Your task to perform on an android device: delete the emails in spam in the gmail app Image 0: 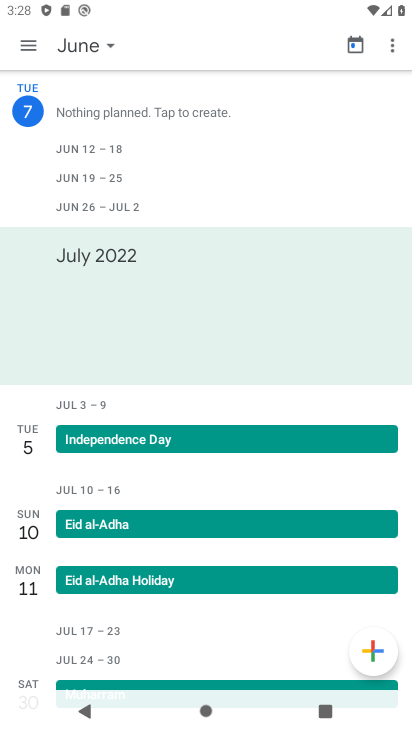
Step 0: press home button
Your task to perform on an android device: delete the emails in spam in the gmail app Image 1: 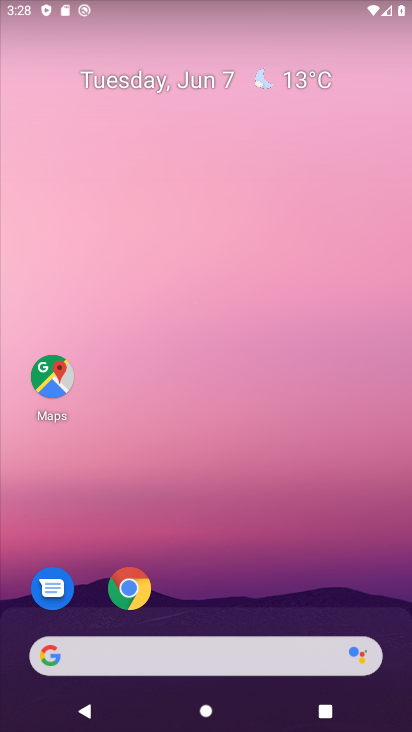
Step 1: drag from (305, 607) to (218, 73)
Your task to perform on an android device: delete the emails in spam in the gmail app Image 2: 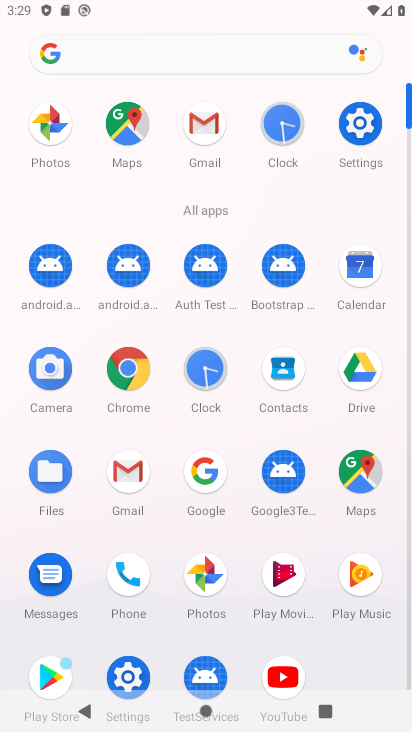
Step 2: click (140, 457)
Your task to perform on an android device: delete the emails in spam in the gmail app Image 3: 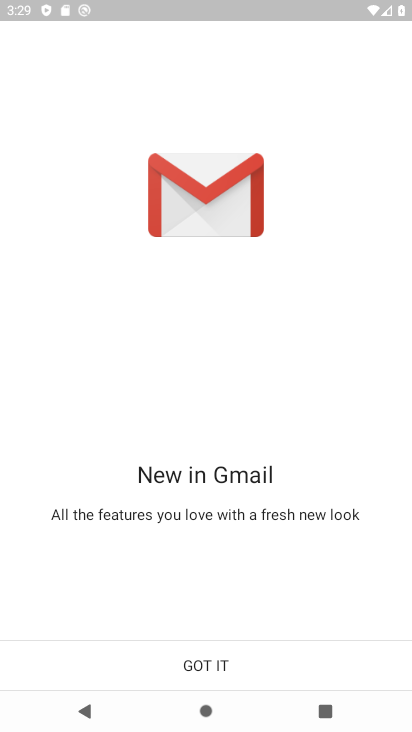
Step 3: click (160, 671)
Your task to perform on an android device: delete the emails in spam in the gmail app Image 4: 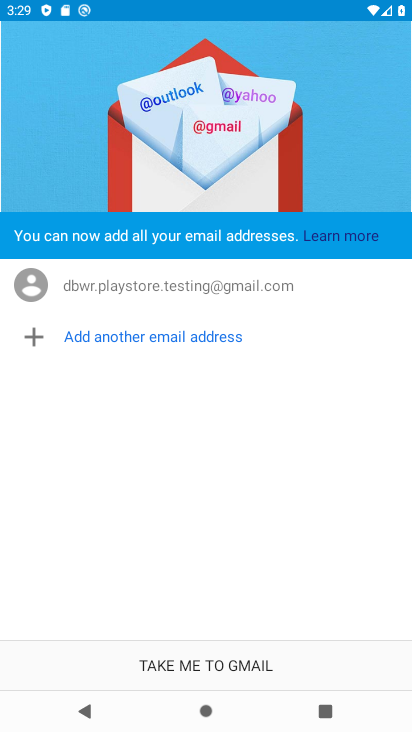
Step 4: click (160, 671)
Your task to perform on an android device: delete the emails in spam in the gmail app Image 5: 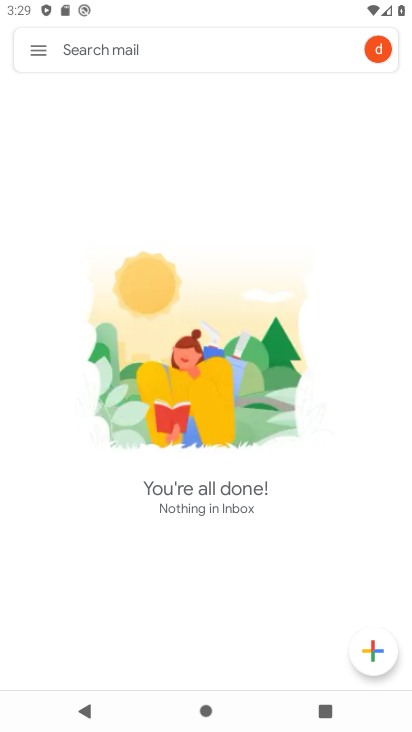
Step 5: click (36, 46)
Your task to perform on an android device: delete the emails in spam in the gmail app Image 6: 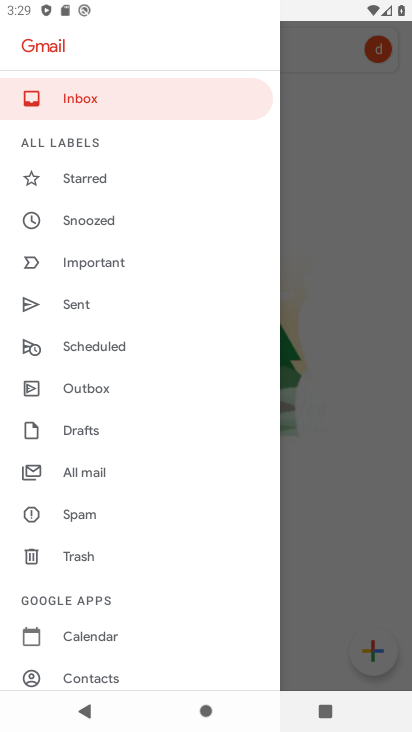
Step 6: task complete